Your task to perform on an android device: Open Android settings Image 0: 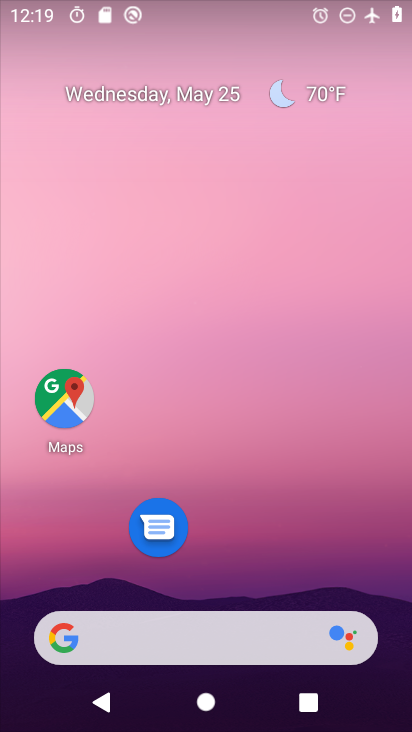
Step 0: drag from (248, 540) to (251, 22)
Your task to perform on an android device: Open Android settings Image 1: 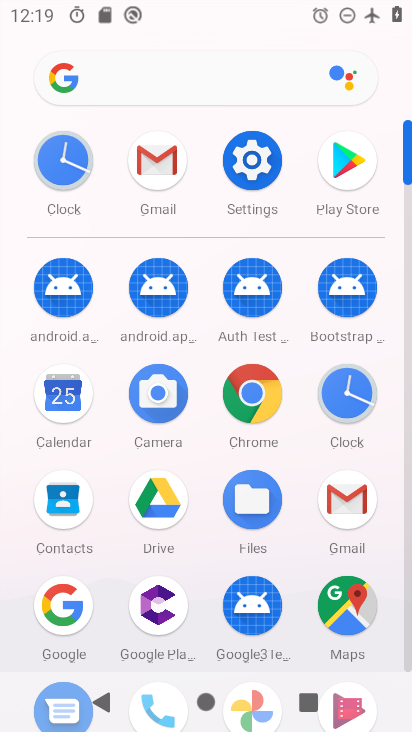
Step 1: click (256, 162)
Your task to perform on an android device: Open Android settings Image 2: 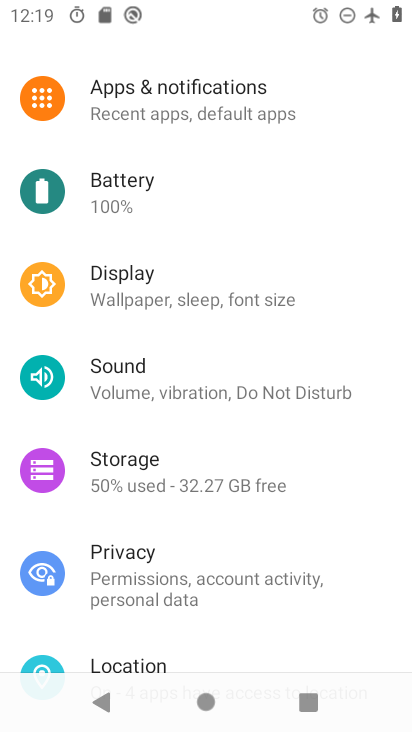
Step 2: task complete